Your task to perform on an android device: Go to CNN.com Image 0: 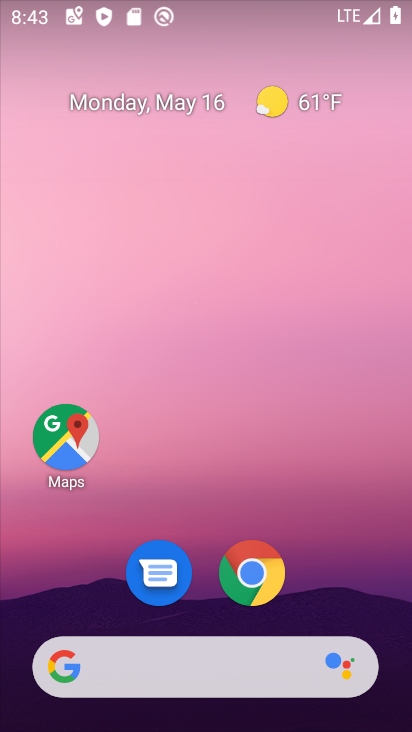
Step 0: click (249, 576)
Your task to perform on an android device: Go to CNN.com Image 1: 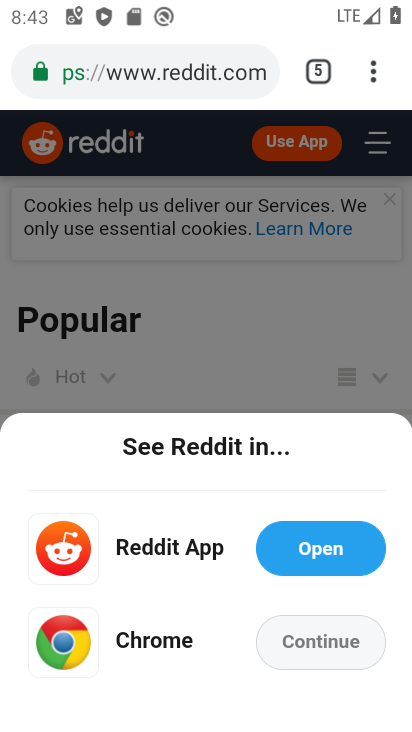
Step 1: click (375, 77)
Your task to perform on an android device: Go to CNN.com Image 2: 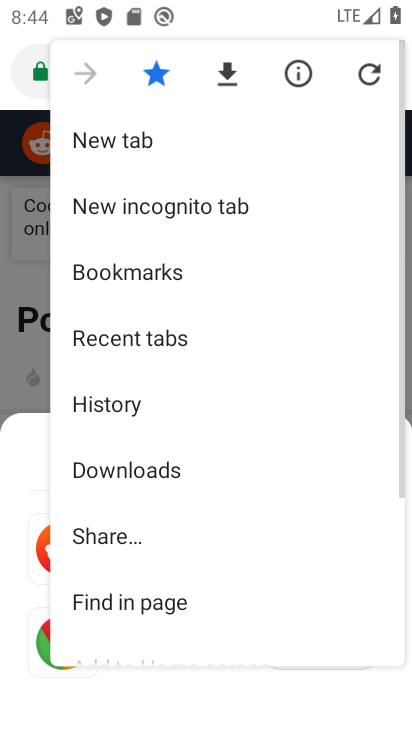
Step 2: click (86, 139)
Your task to perform on an android device: Go to CNN.com Image 3: 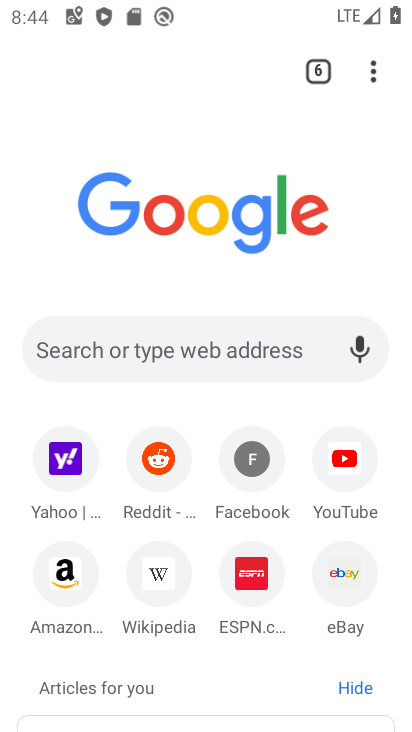
Step 3: click (194, 347)
Your task to perform on an android device: Go to CNN.com Image 4: 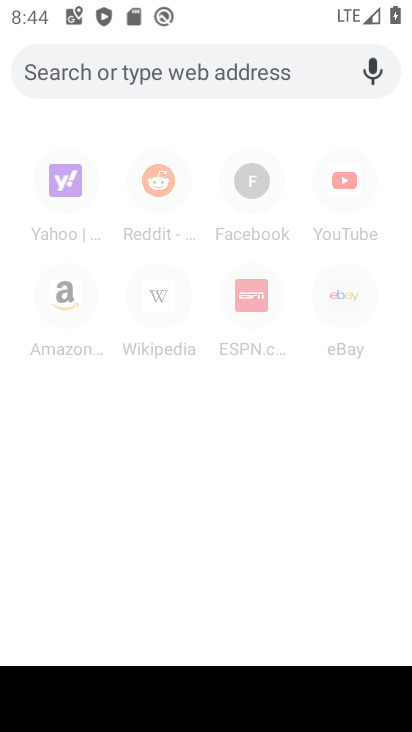
Step 4: type "CNN.com"
Your task to perform on an android device: Go to CNN.com Image 5: 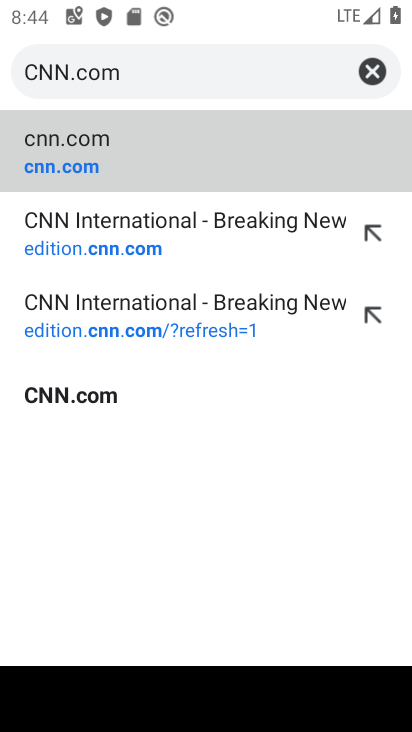
Step 5: click (57, 145)
Your task to perform on an android device: Go to CNN.com Image 6: 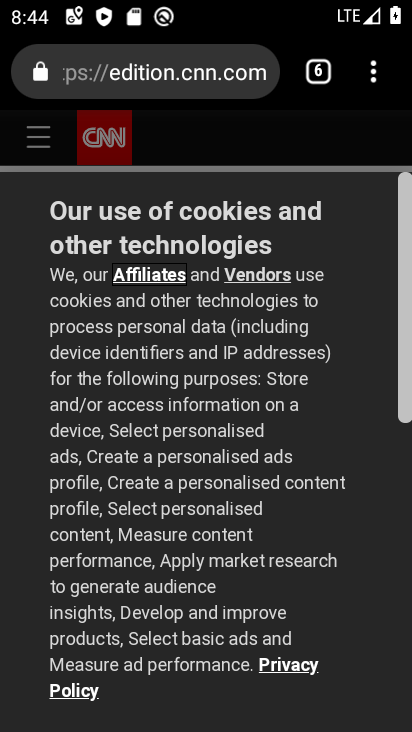
Step 6: task complete